Your task to perform on an android device: Go to calendar. Show me events next week Image 0: 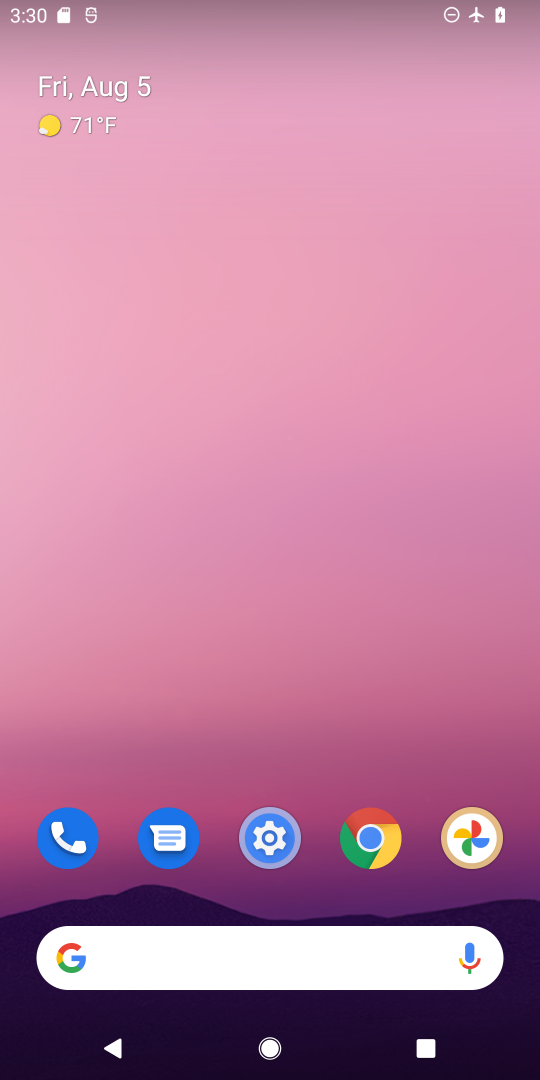
Step 0: drag from (329, 778) to (306, 137)
Your task to perform on an android device: Go to calendar. Show me events next week Image 1: 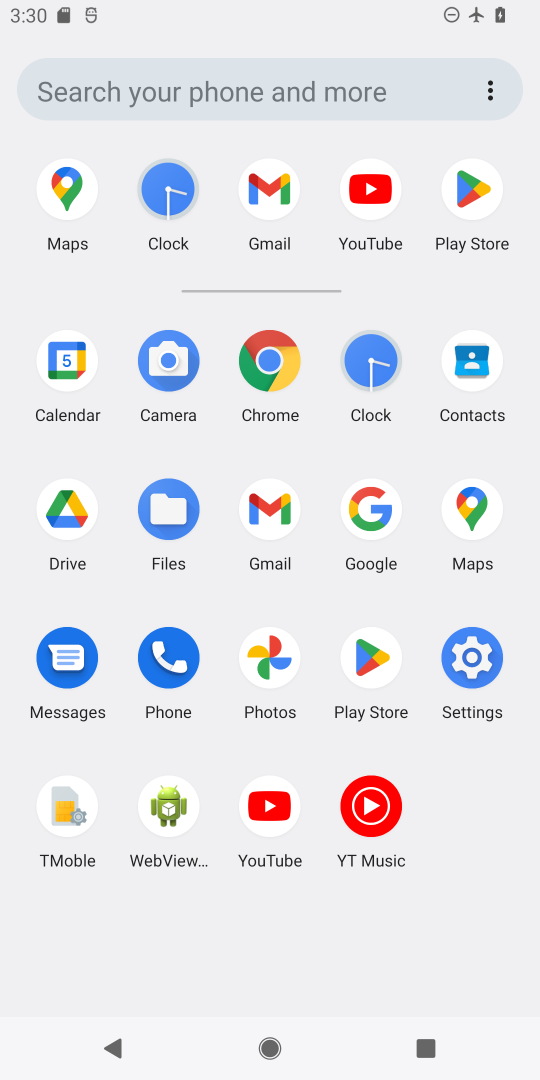
Step 1: click (72, 395)
Your task to perform on an android device: Go to calendar. Show me events next week Image 2: 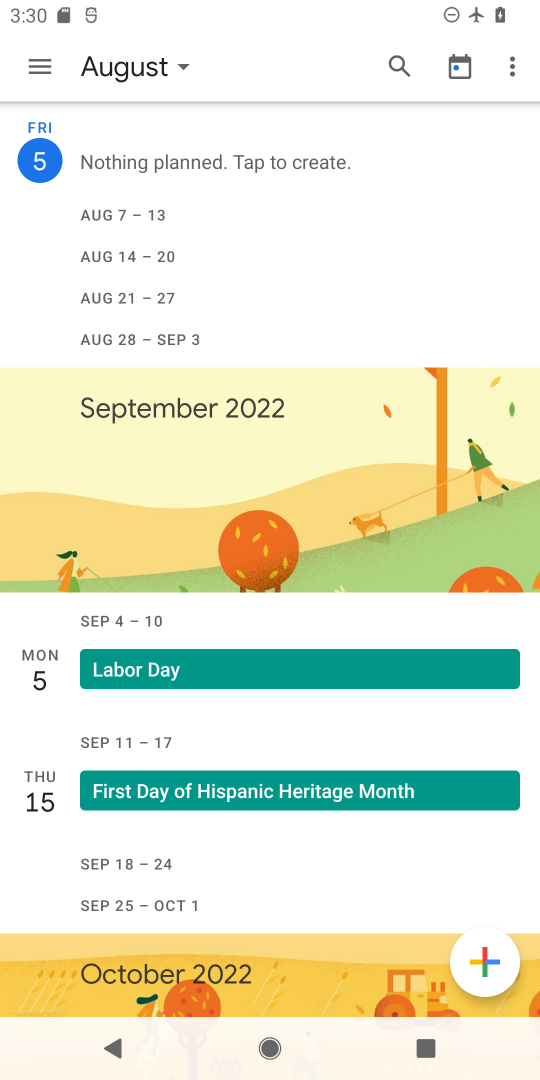
Step 2: click (38, 68)
Your task to perform on an android device: Go to calendar. Show me events next week Image 3: 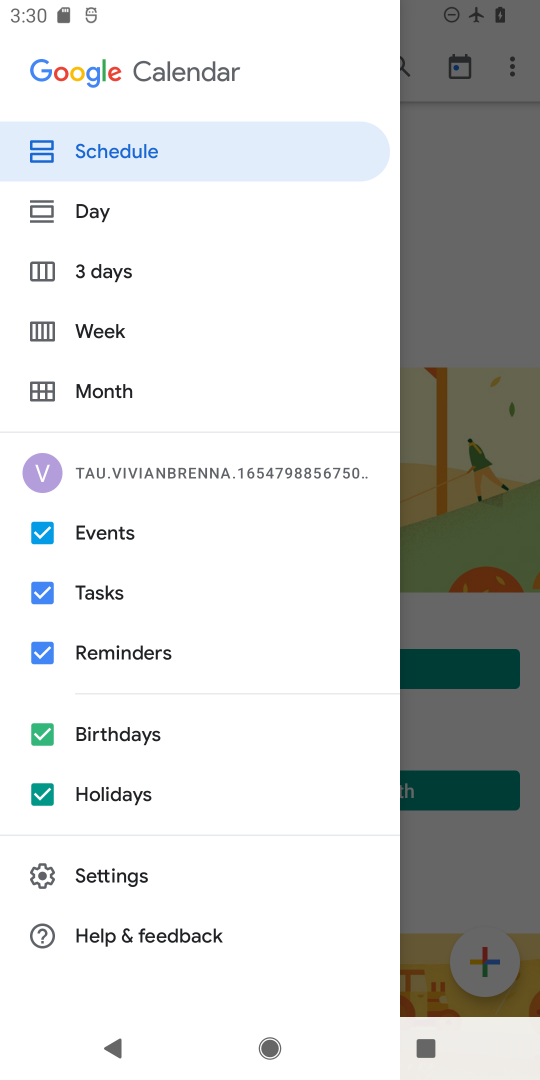
Step 3: click (27, 800)
Your task to perform on an android device: Go to calendar. Show me events next week Image 4: 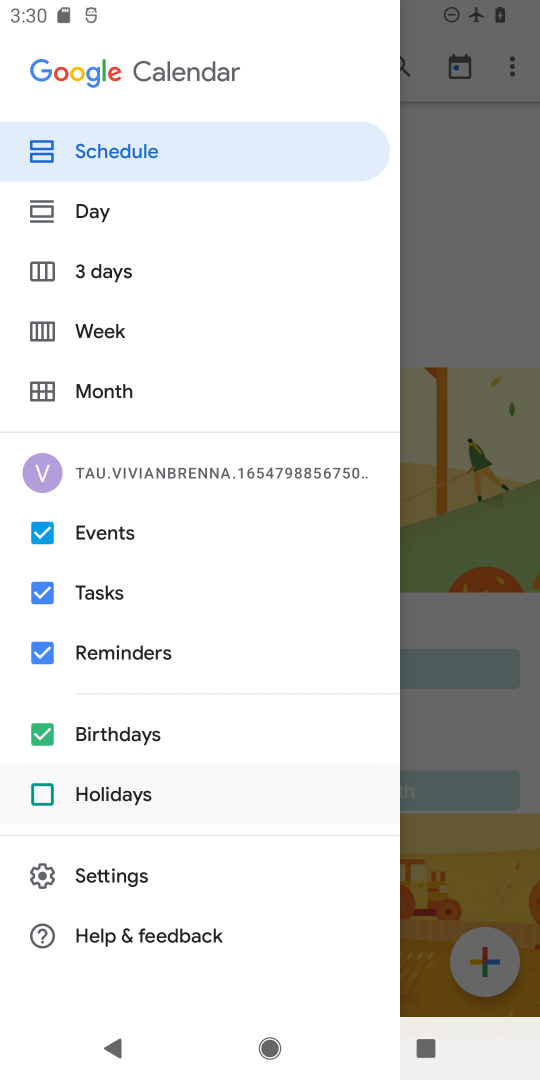
Step 4: click (47, 726)
Your task to perform on an android device: Go to calendar. Show me events next week Image 5: 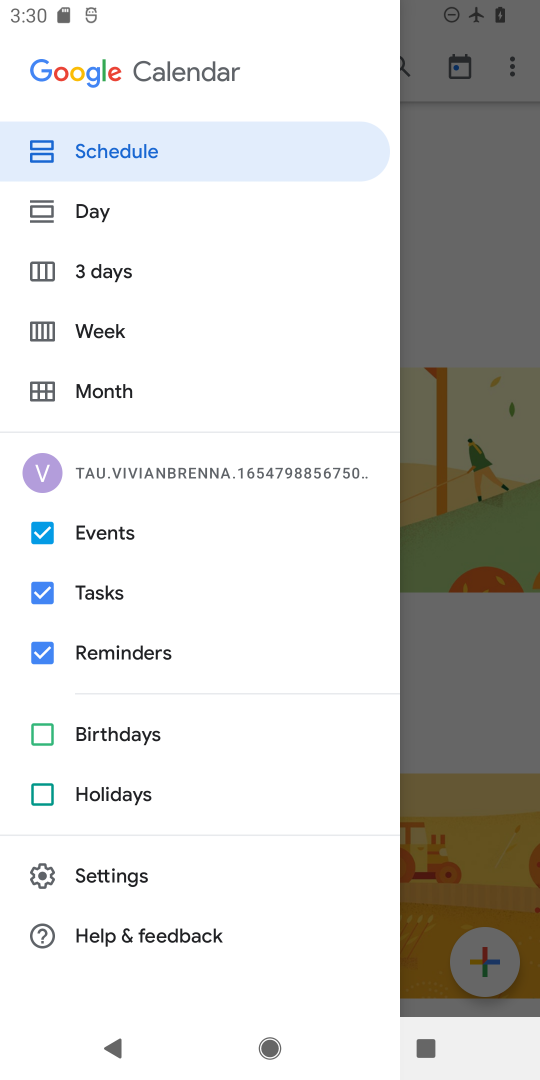
Step 5: click (44, 644)
Your task to perform on an android device: Go to calendar. Show me events next week Image 6: 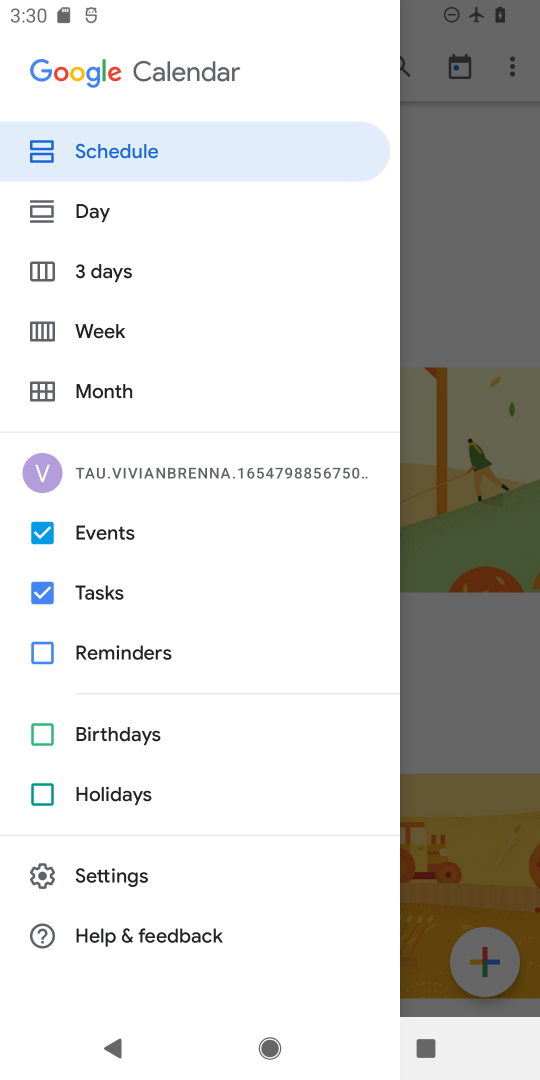
Step 6: click (46, 585)
Your task to perform on an android device: Go to calendar. Show me events next week Image 7: 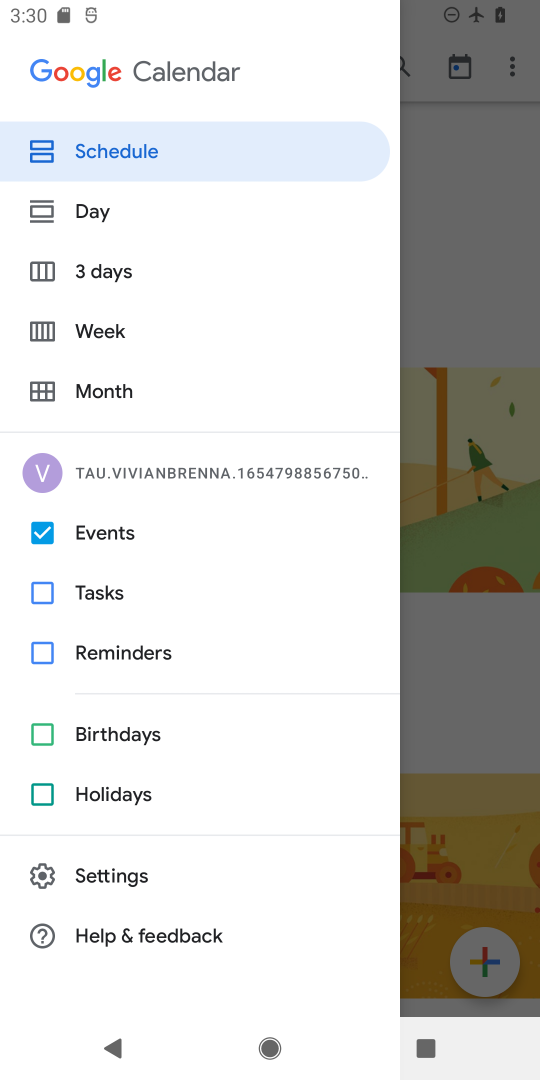
Step 7: click (124, 322)
Your task to perform on an android device: Go to calendar. Show me events next week Image 8: 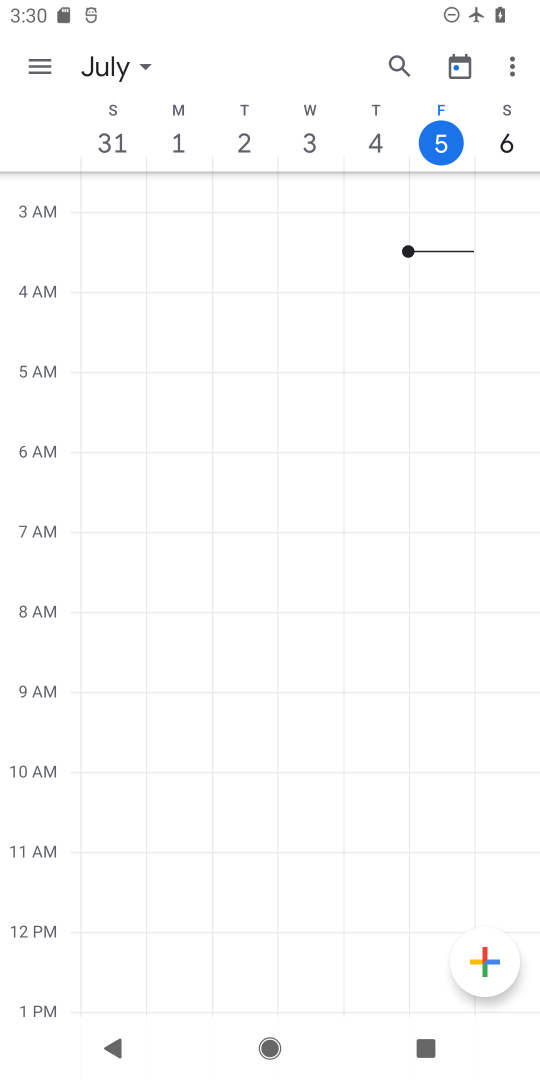
Step 8: click (149, 61)
Your task to perform on an android device: Go to calendar. Show me events next week Image 9: 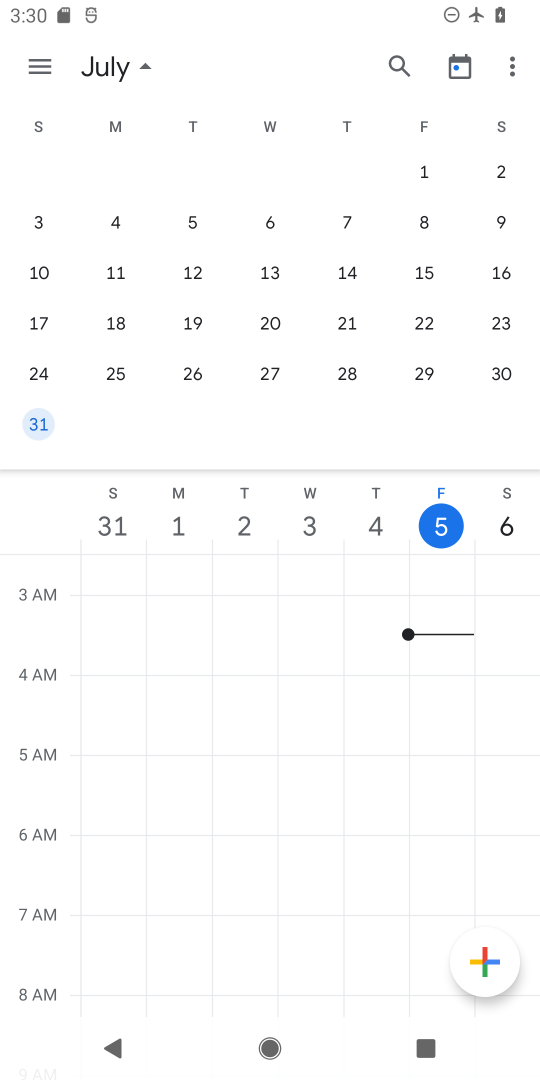
Step 9: drag from (486, 356) to (14, 285)
Your task to perform on an android device: Go to calendar. Show me events next week Image 10: 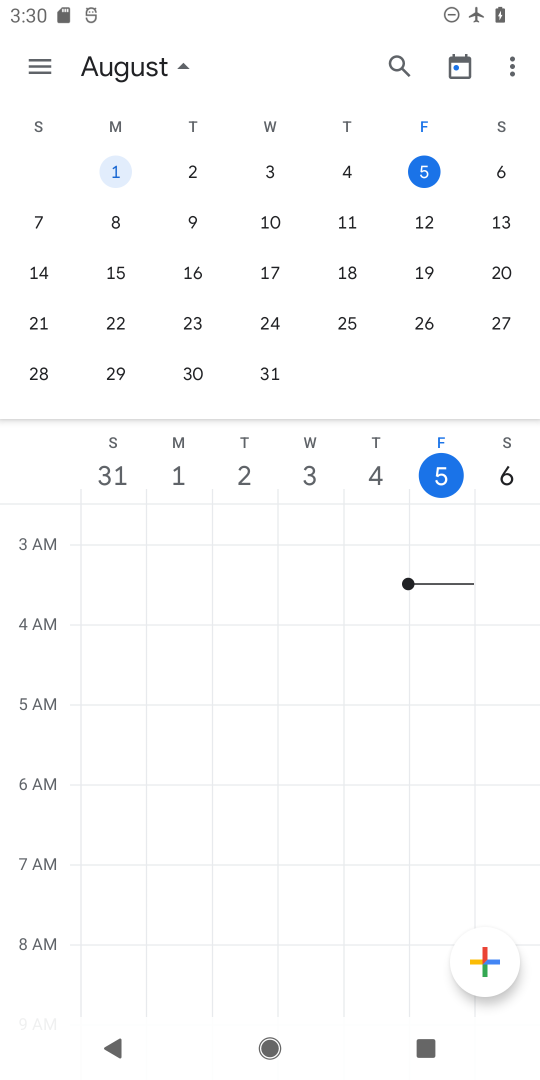
Step 10: click (340, 209)
Your task to perform on an android device: Go to calendar. Show me events next week Image 11: 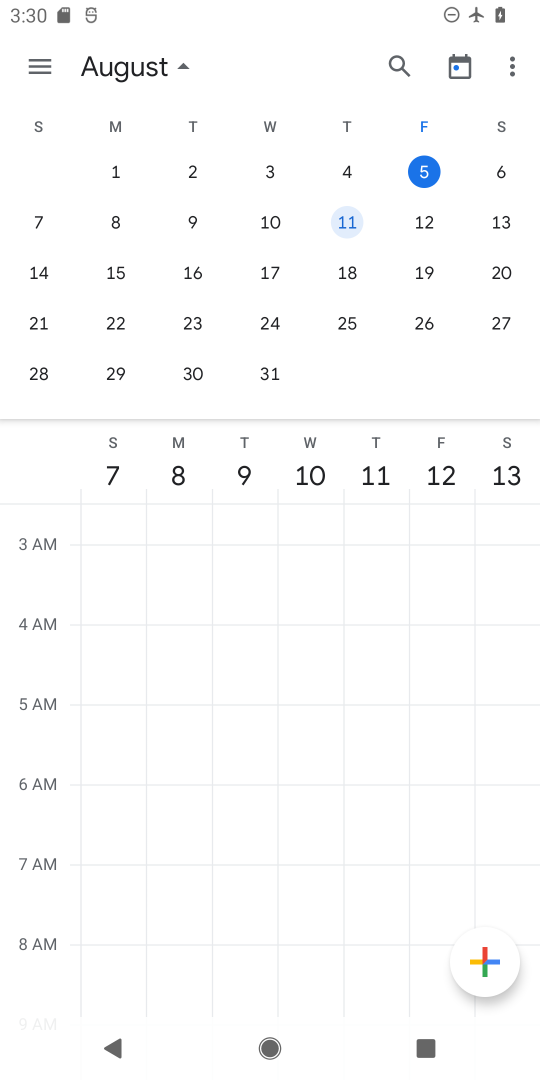
Step 11: task complete